Your task to perform on an android device: open app "Firefox Browser" Image 0: 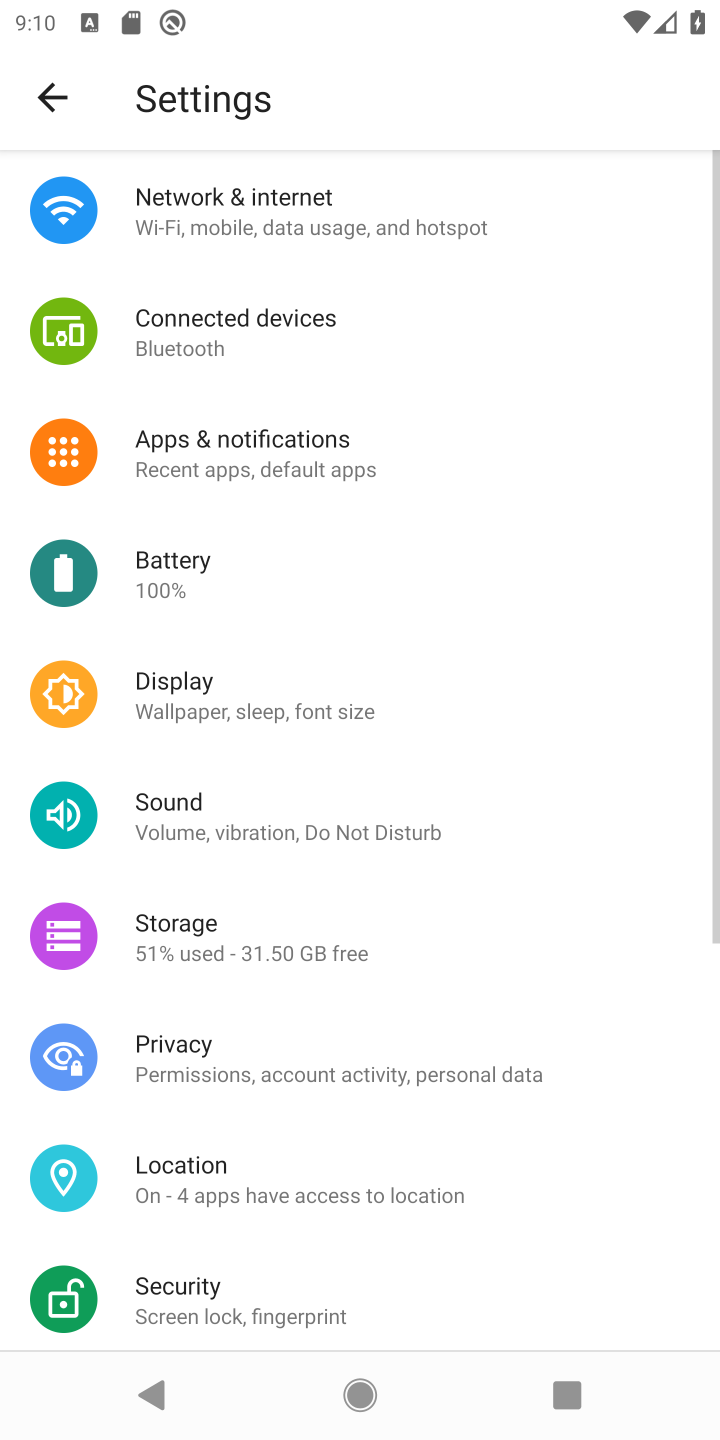
Step 0: press home button
Your task to perform on an android device: open app "Firefox Browser" Image 1: 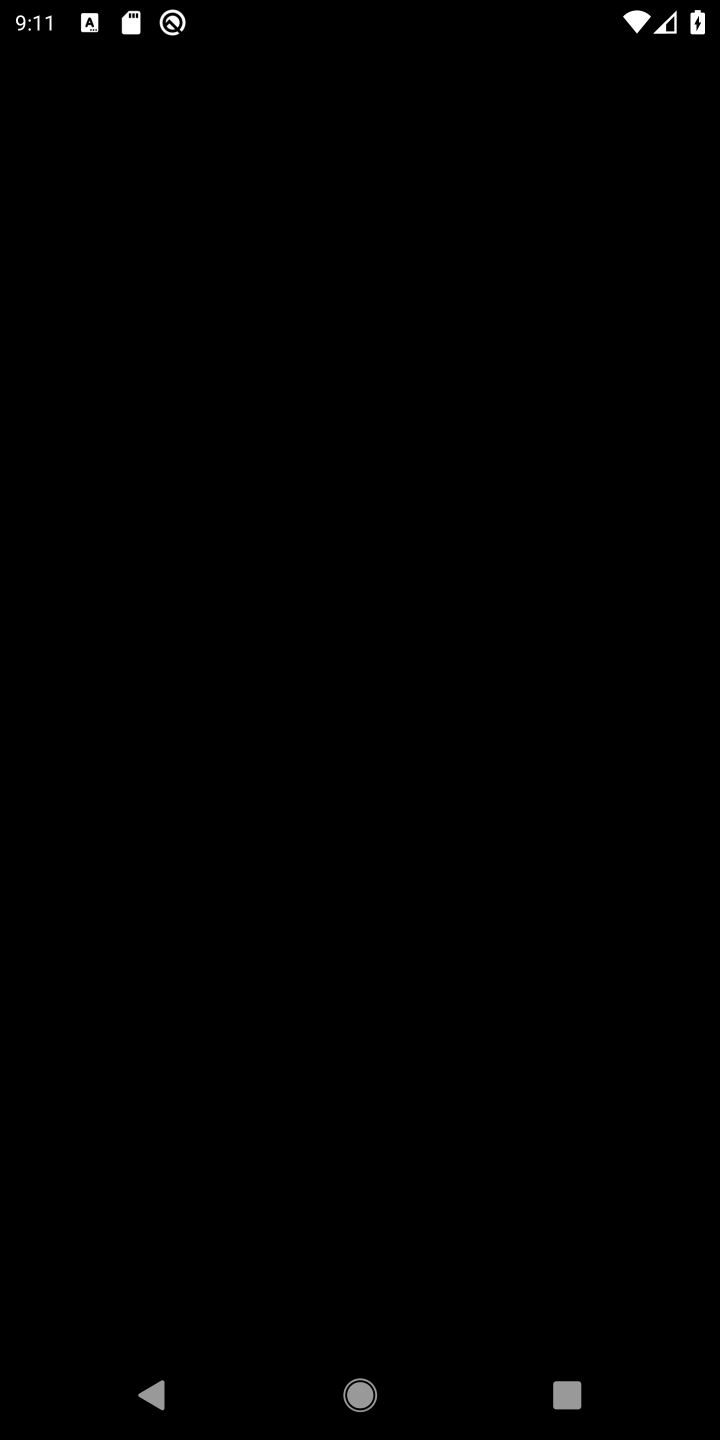
Step 1: press home button
Your task to perform on an android device: open app "Firefox Browser" Image 2: 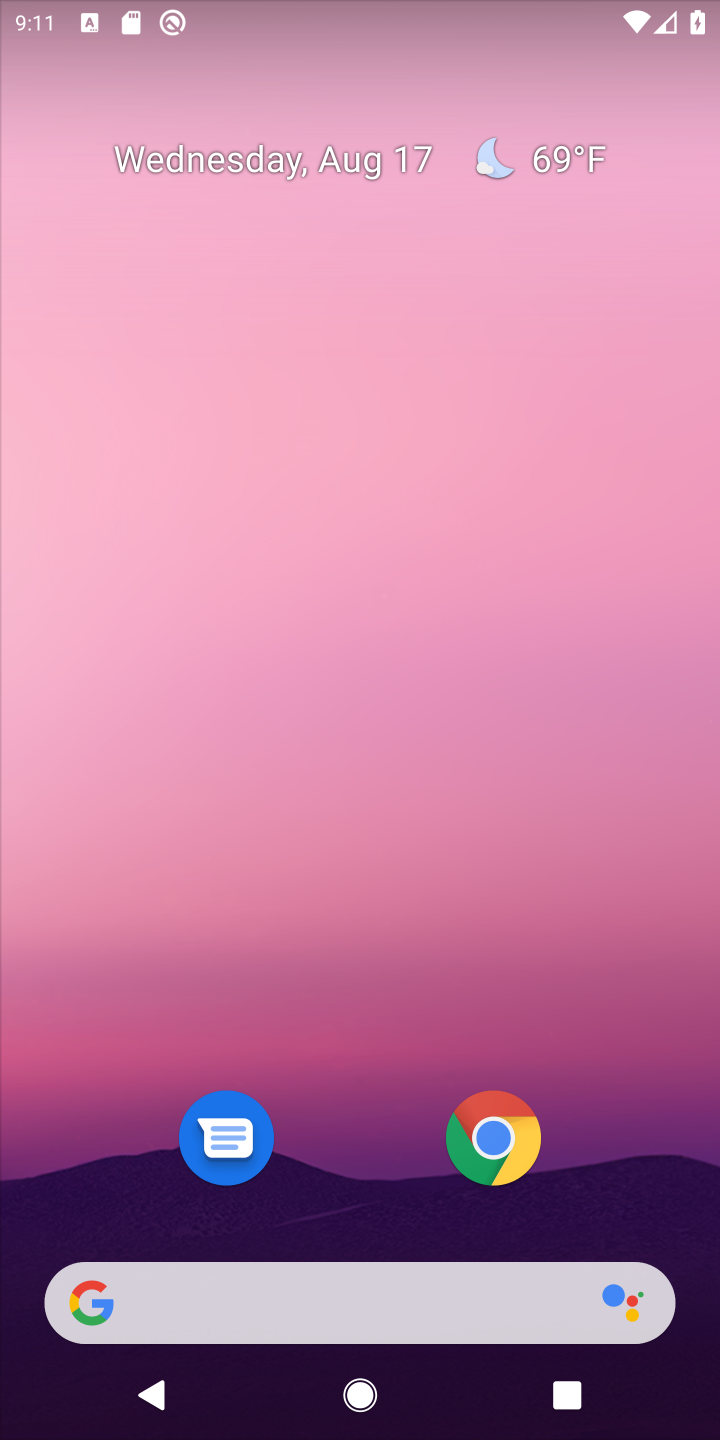
Step 2: drag from (333, 1213) to (390, 324)
Your task to perform on an android device: open app "Firefox Browser" Image 3: 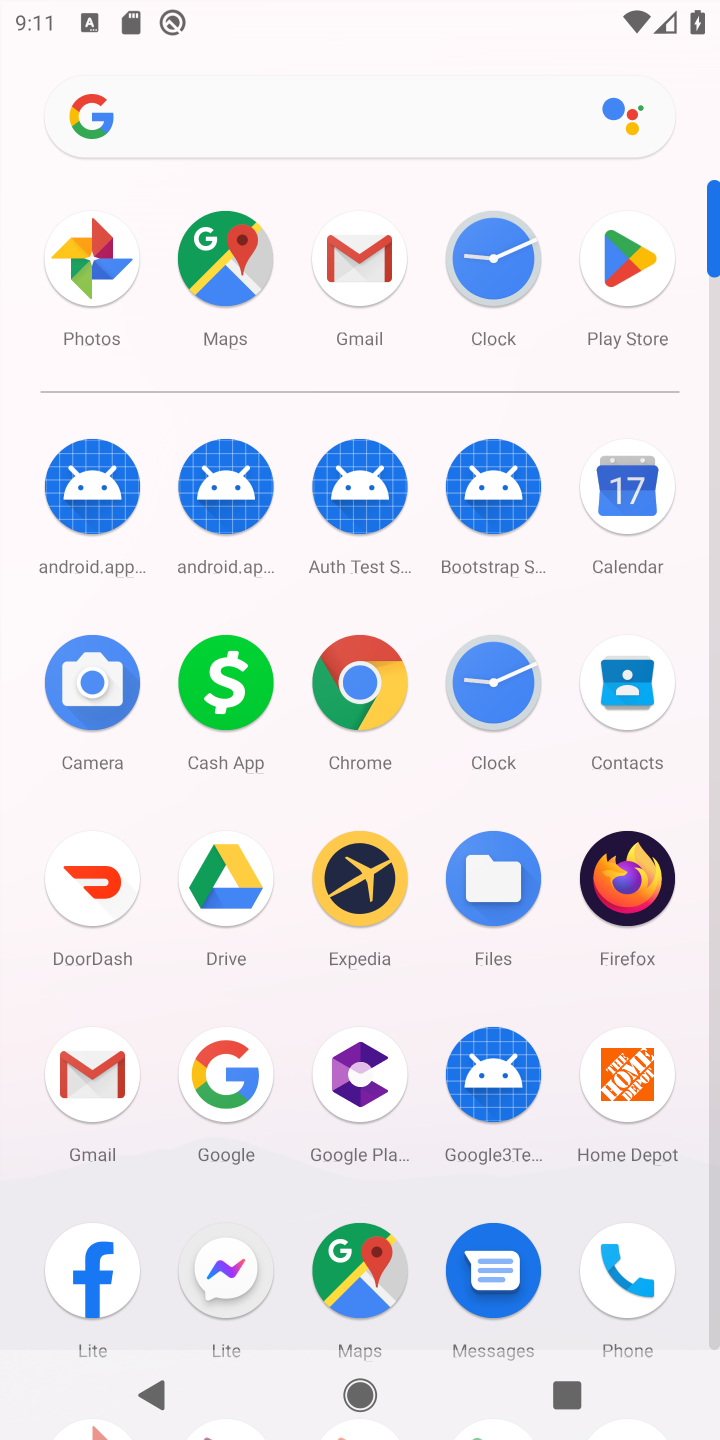
Step 3: click (629, 267)
Your task to perform on an android device: open app "Firefox Browser" Image 4: 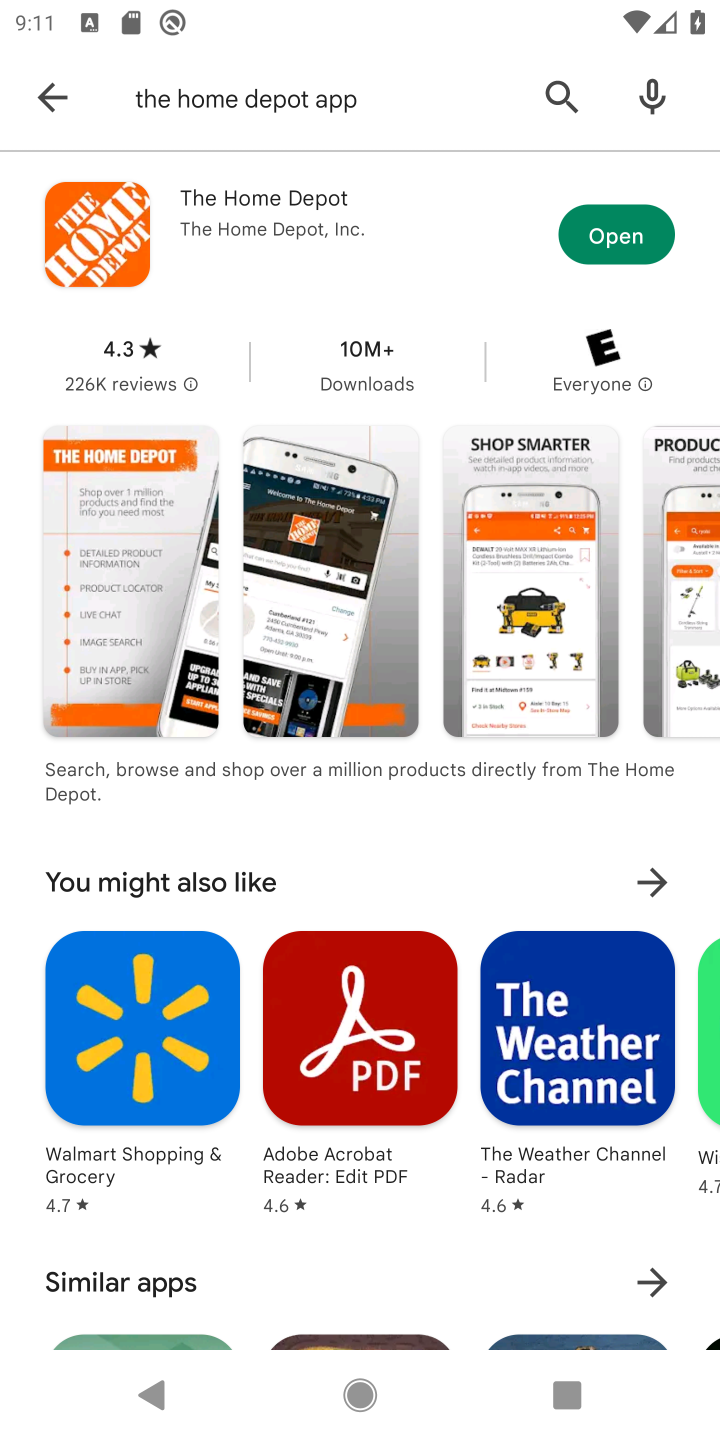
Step 4: click (67, 97)
Your task to perform on an android device: open app "Firefox Browser" Image 5: 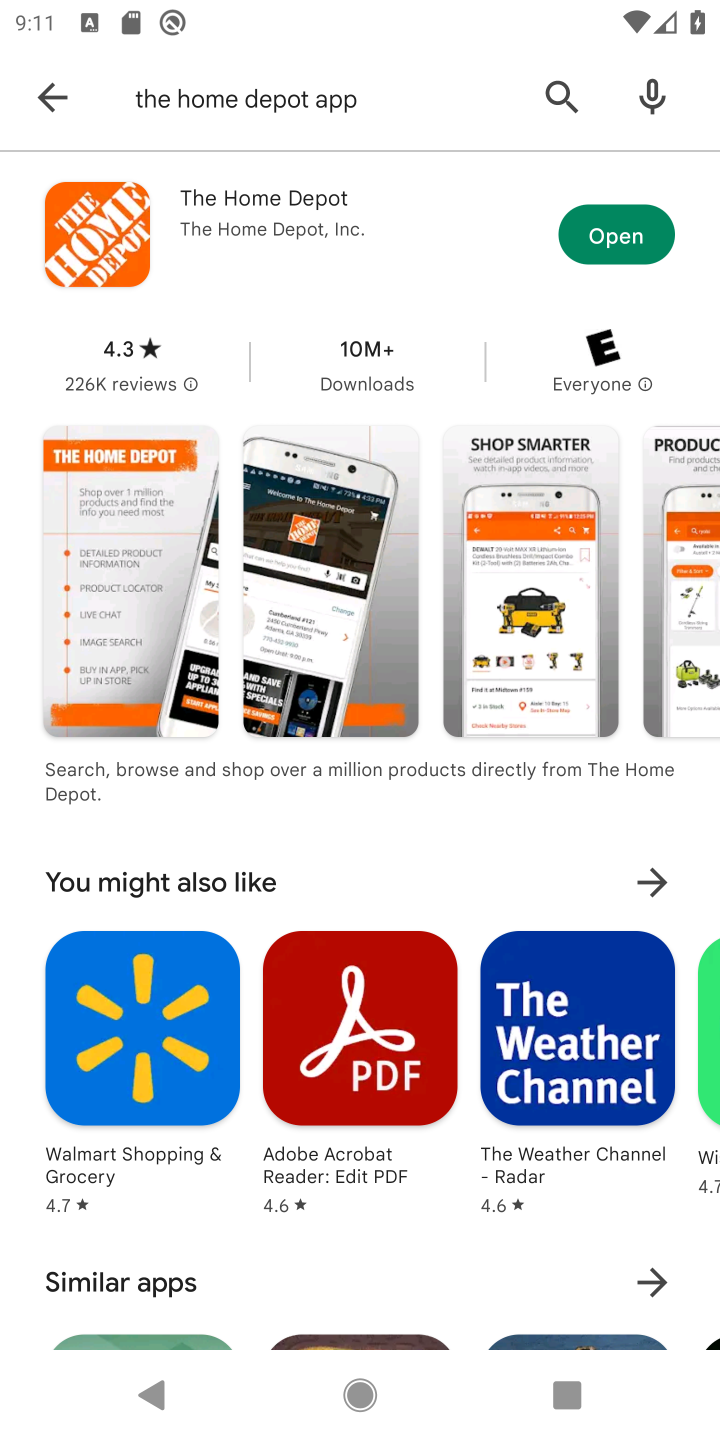
Step 5: click (30, 82)
Your task to perform on an android device: open app "Firefox Browser" Image 6: 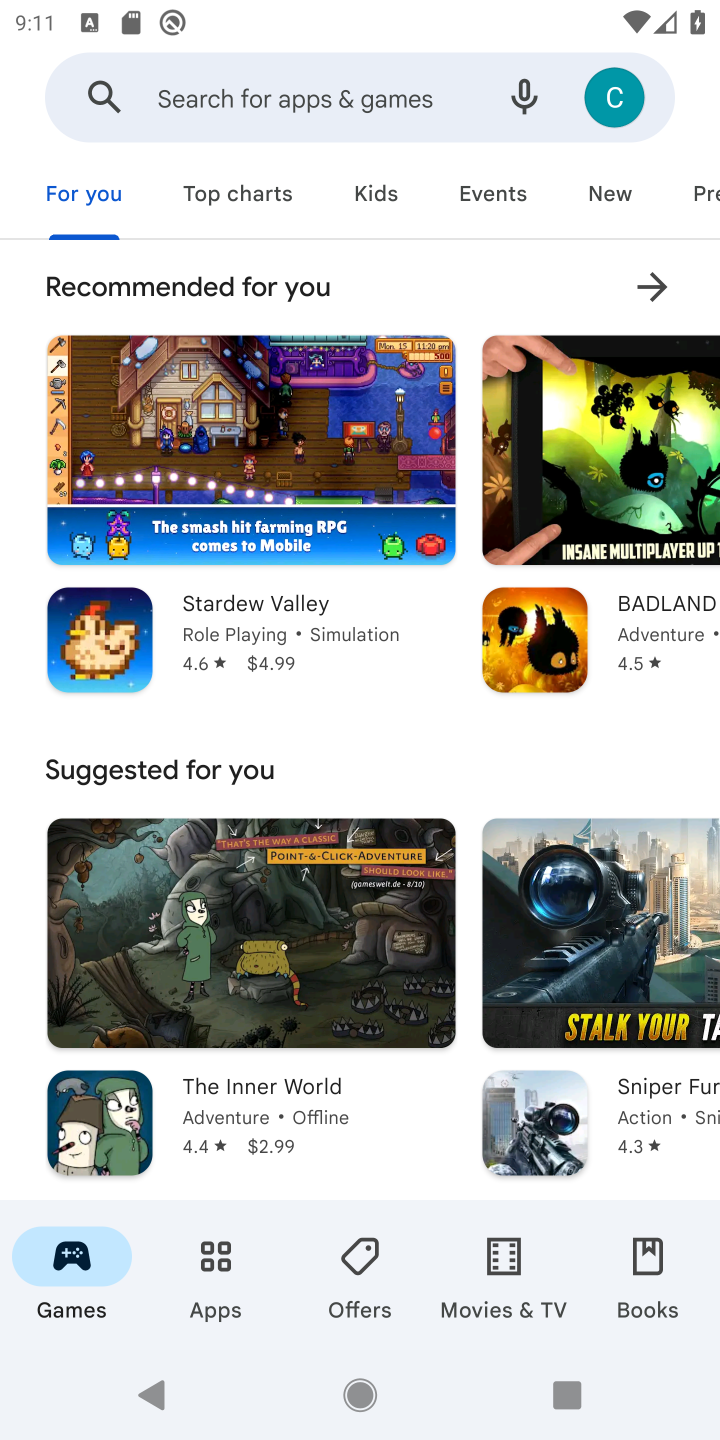
Step 6: click (308, 96)
Your task to perform on an android device: open app "Firefox Browser" Image 7: 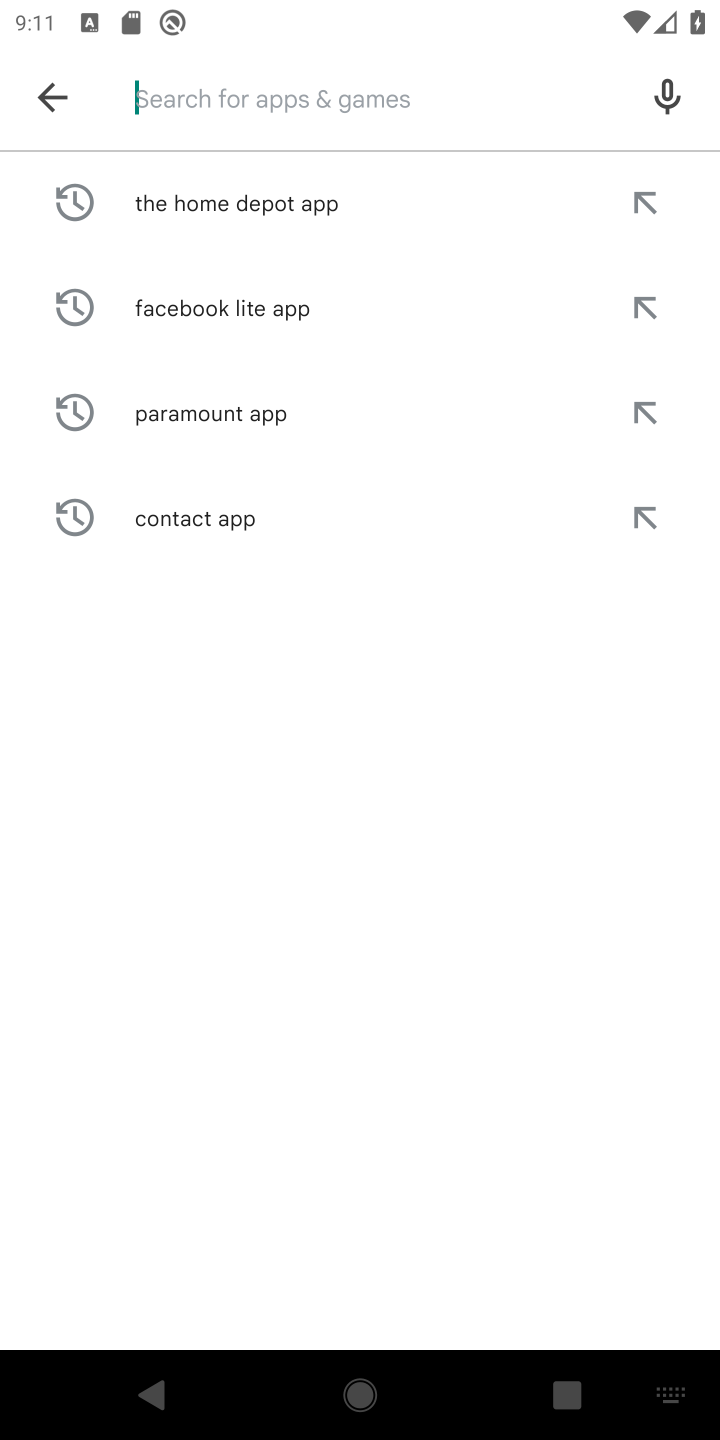
Step 7: type "Firefox Browser "
Your task to perform on an android device: open app "Firefox Browser" Image 8: 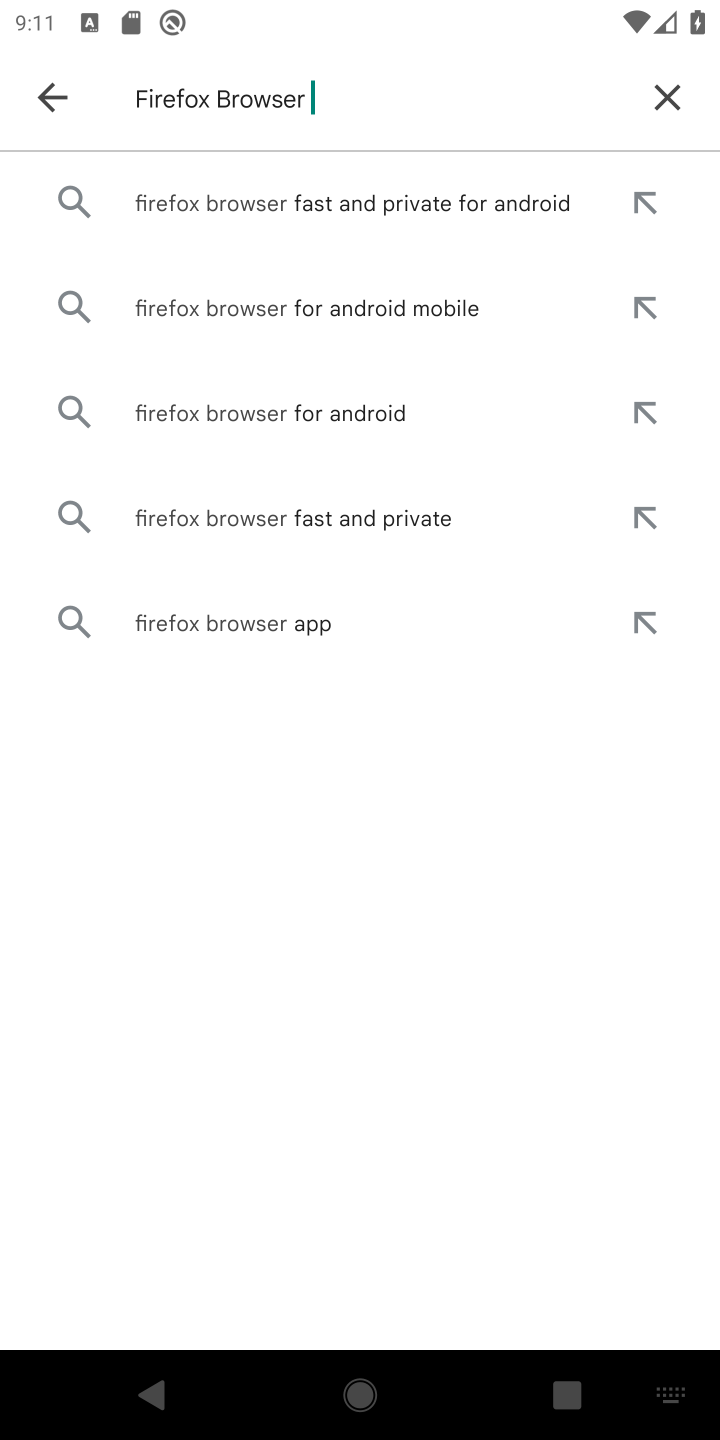
Step 8: click (301, 428)
Your task to perform on an android device: open app "Firefox Browser" Image 9: 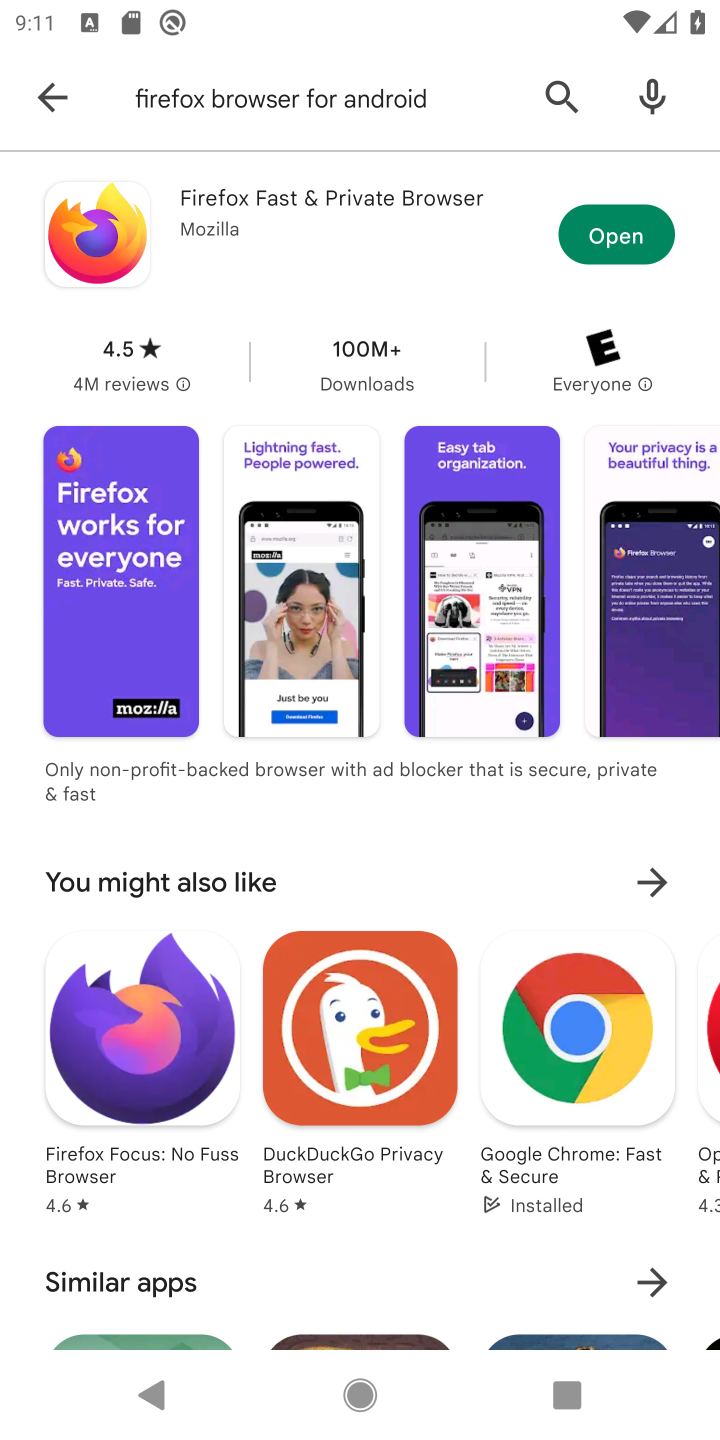
Step 9: click (632, 231)
Your task to perform on an android device: open app "Firefox Browser" Image 10: 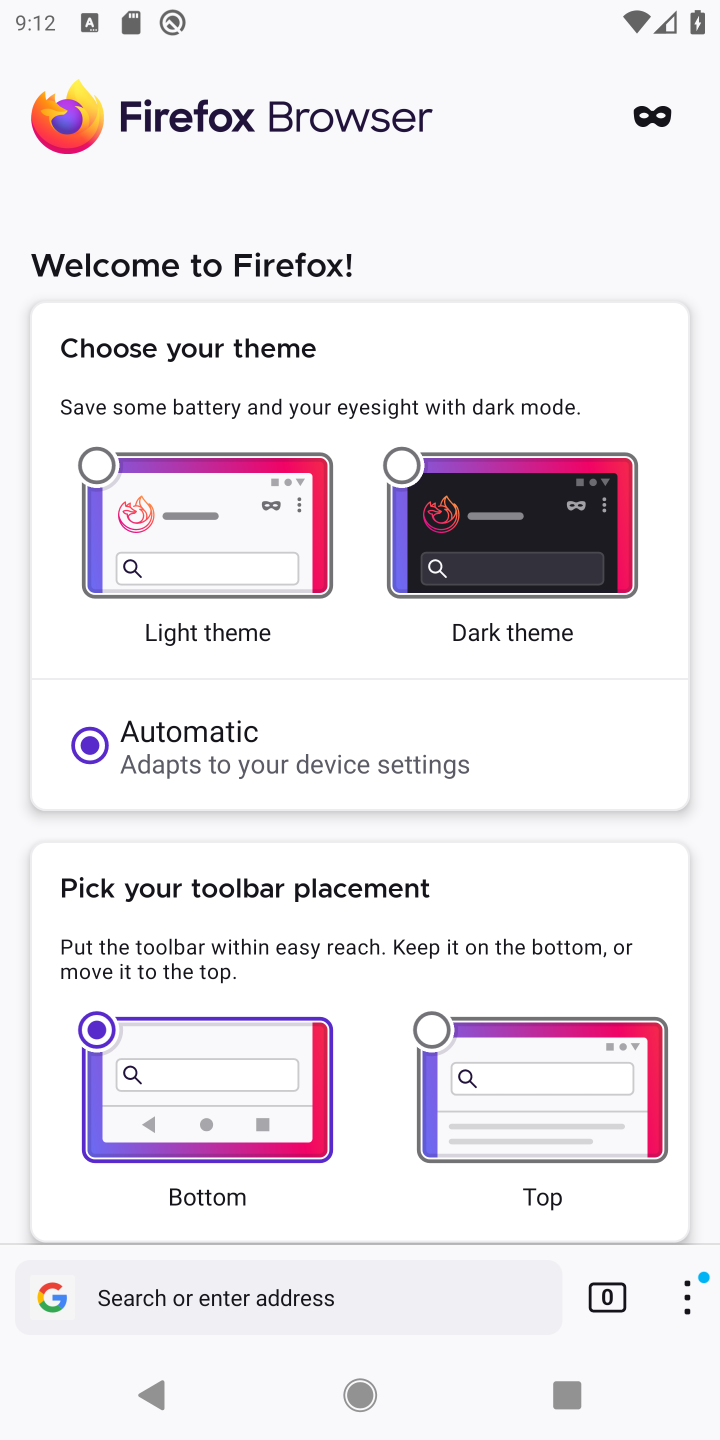
Step 10: task complete